Your task to perform on an android device: toggle sleep mode Image 0: 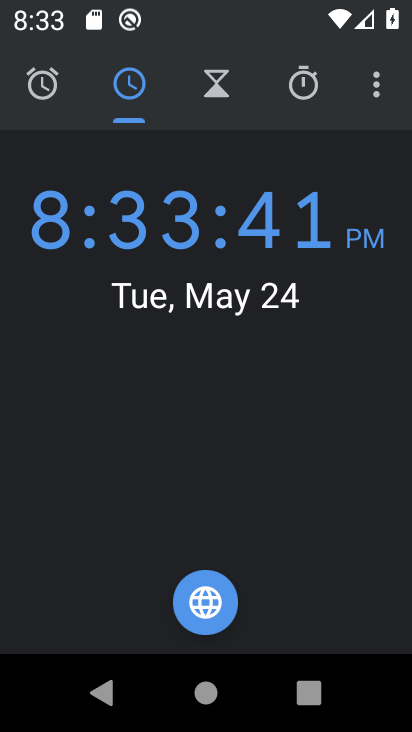
Step 0: press home button
Your task to perform on an android device: toggle sleep mode Image 1: 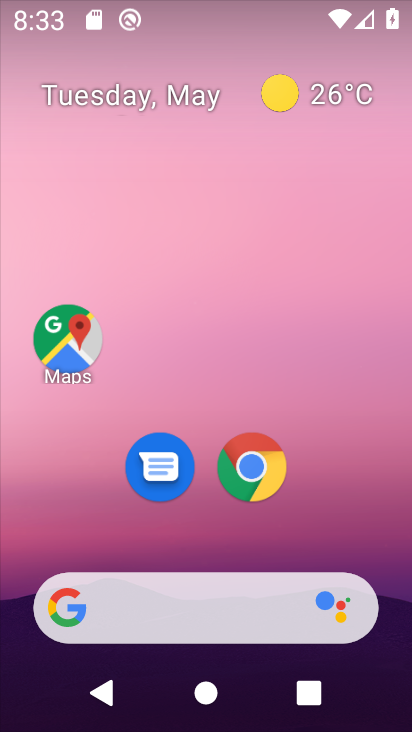
Step 1: drag from (392, 714) to (353, 236)
Your task to perform on an android device: toggle sleep mode Image 2: 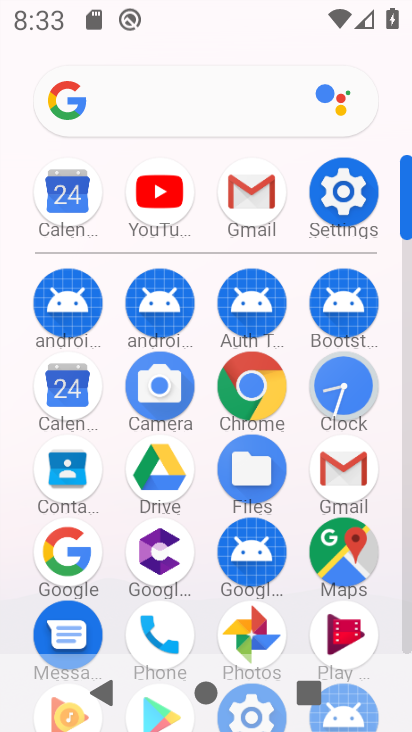
Step 2: click (337, 203)
Your task to perform on an android device: toggle sleep mode Image 3: 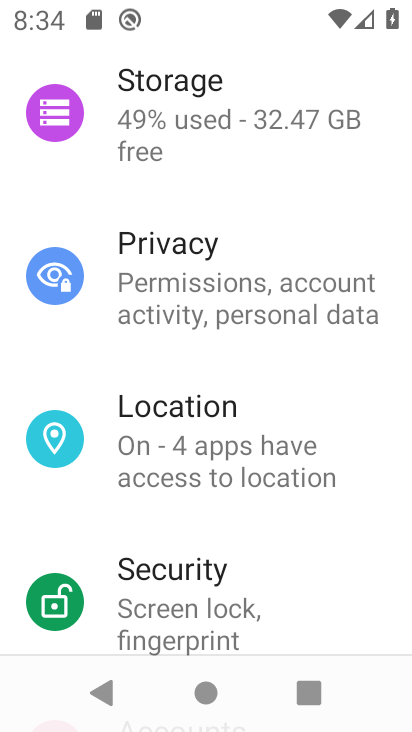
Step 3: drag from (281, 162) to (286, 612)
Your task to perform on an android device: toggle sleep mode Image 4: 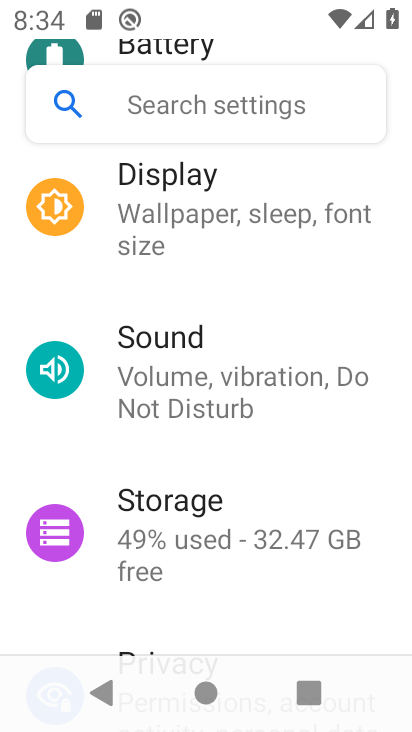
Step 4: drag from (287, 168) to (288, 389)
Your task to perform on an android device: toggle sleep mode Image 5: 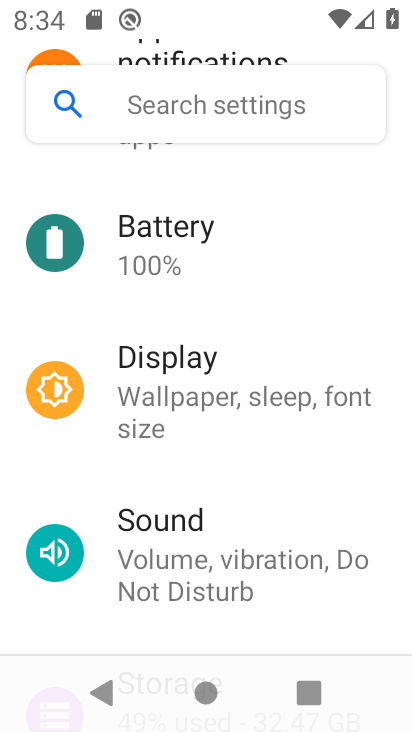
Step 5: click (170, 377)
Your task to perform on an android device: toggle sleep mode Image 6: 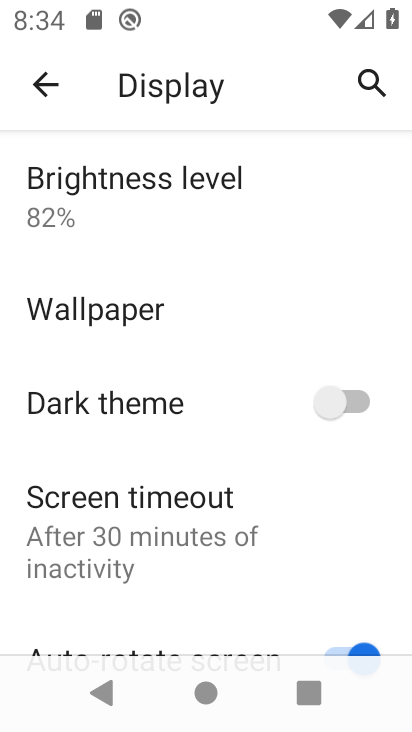
Step 6: drag from (235, 611) to (229, 357)
Your task to perform on an android device: toggle sleep mode Image 7: 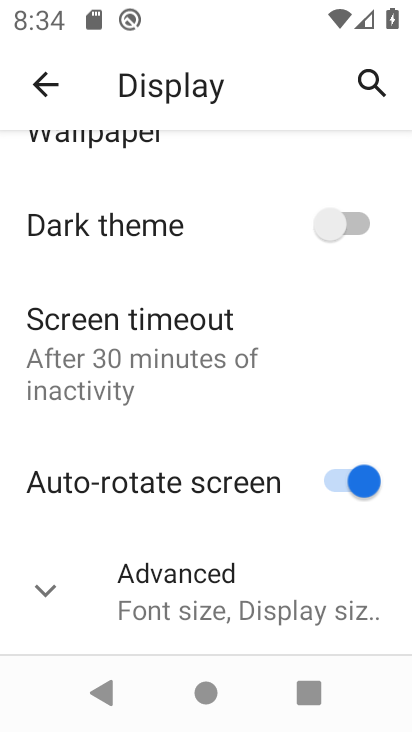
Step 7: click (121, 333)
Your task to perform on an android device: toggle sleep mode Image 8: 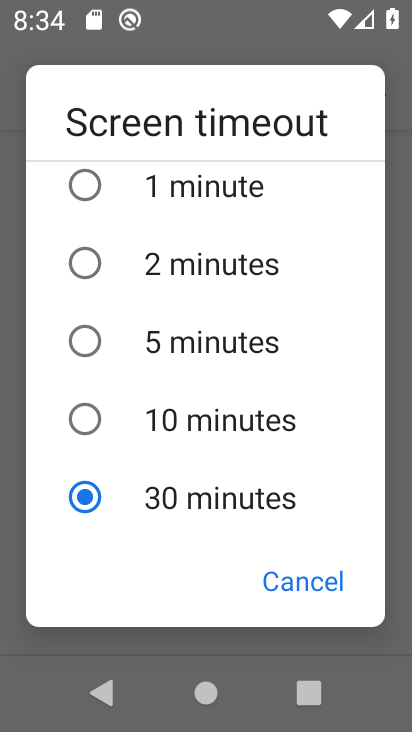
Step 8: click (96, 426)
Your task to perform on an android device: toggle sleep mode Image 9: 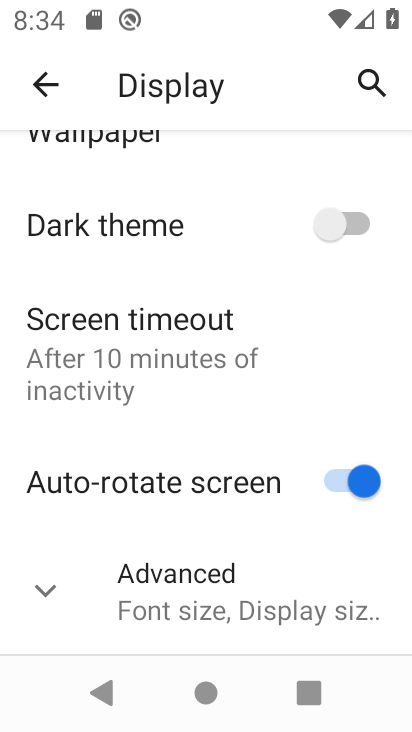
Step 9: task complete